Your task to perform on an android device: Open display settings Image 0: 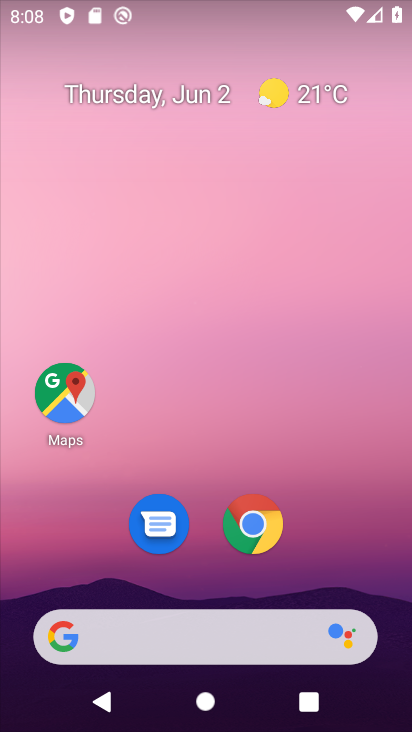
Step 0: drag from (333, 513) to (273, 0)
Your task to perform on an android device: Open display settings Image 1: 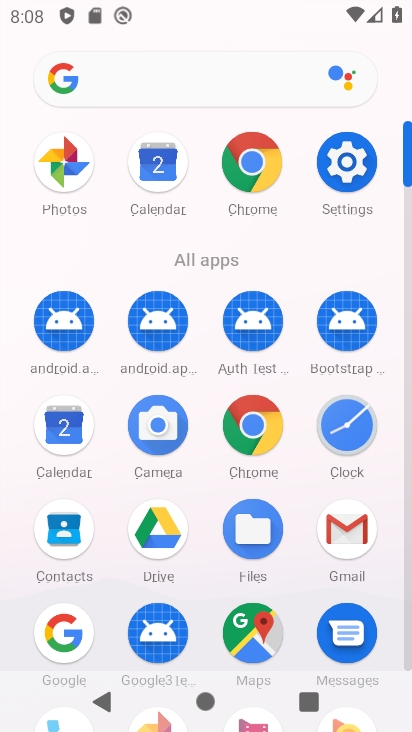
Step 1: click (333, 162)
Your task to perform on an android device: Open display settings Image 2: 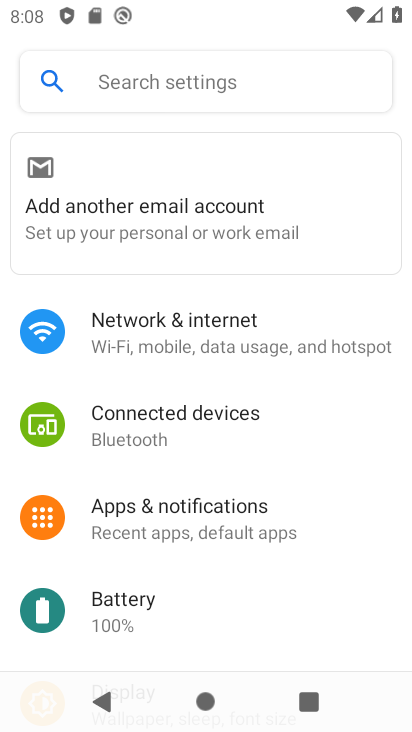
Step 2: drag from (205, 582) to (275, 201)
Your task to perform on an android device: Open display settings Image 3: 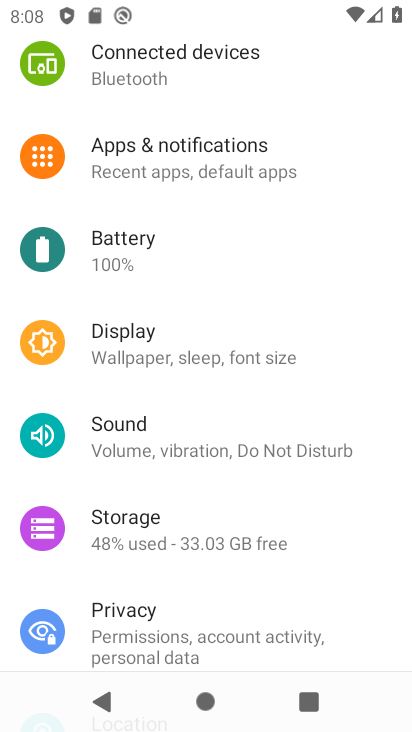
Step 3: click (254, 330)
Your task to perform on an android device: Open display settings Image 4: 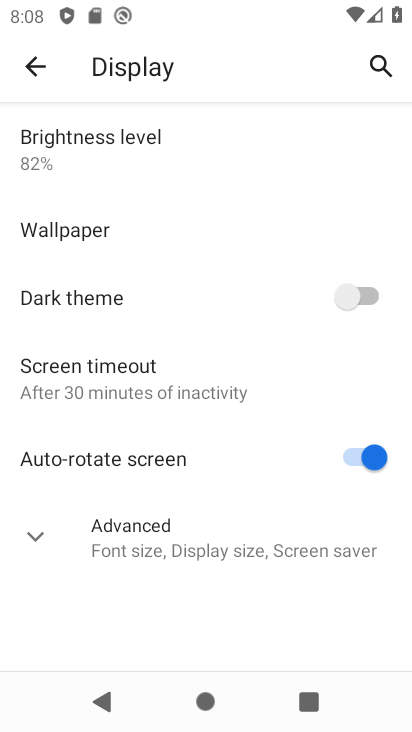
Step 4: task complete